Your task to perform on an android device: open app "Cash App" (install if not already installed) Image 0: 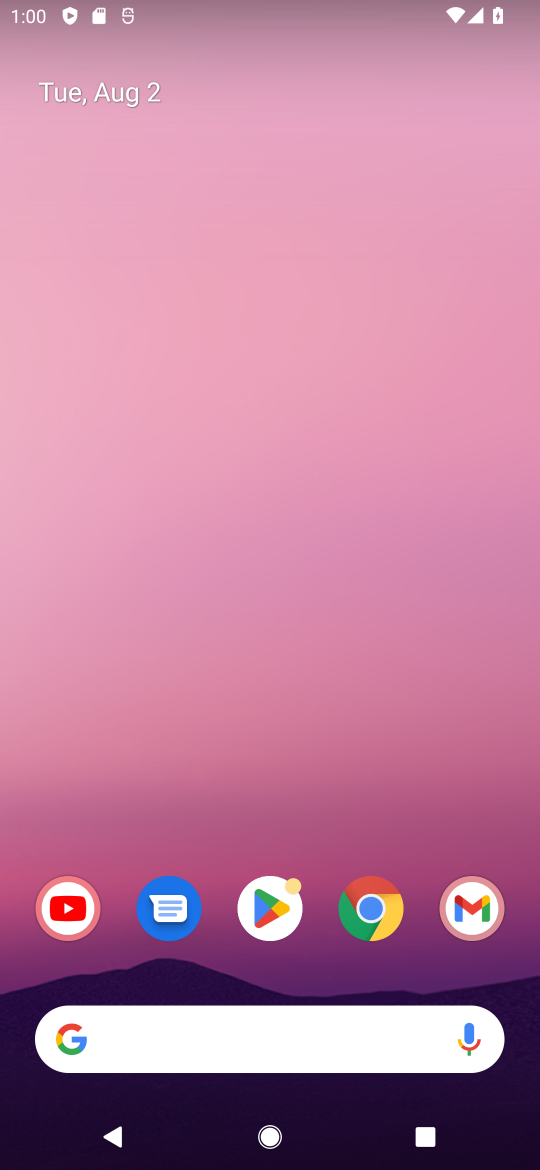
Step 0: click (430, 130)
Your task to perform on an android device: open app "Cash App" (install if not already installed) Image 1: 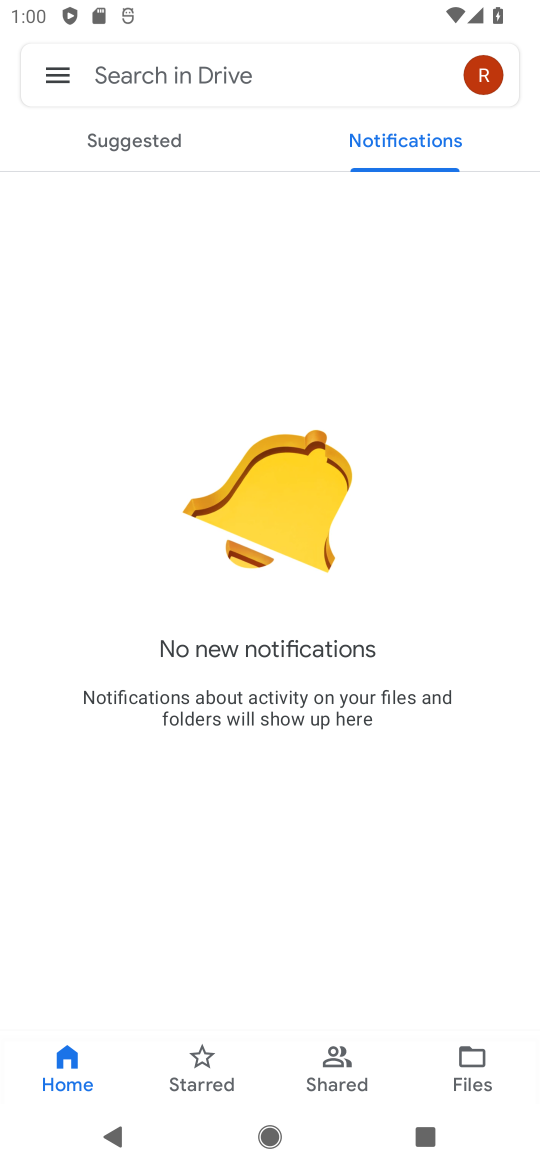
Step 1: press home button
Your task to perform on an android device: open app "Cash App" (install if not already installed) Image 2: 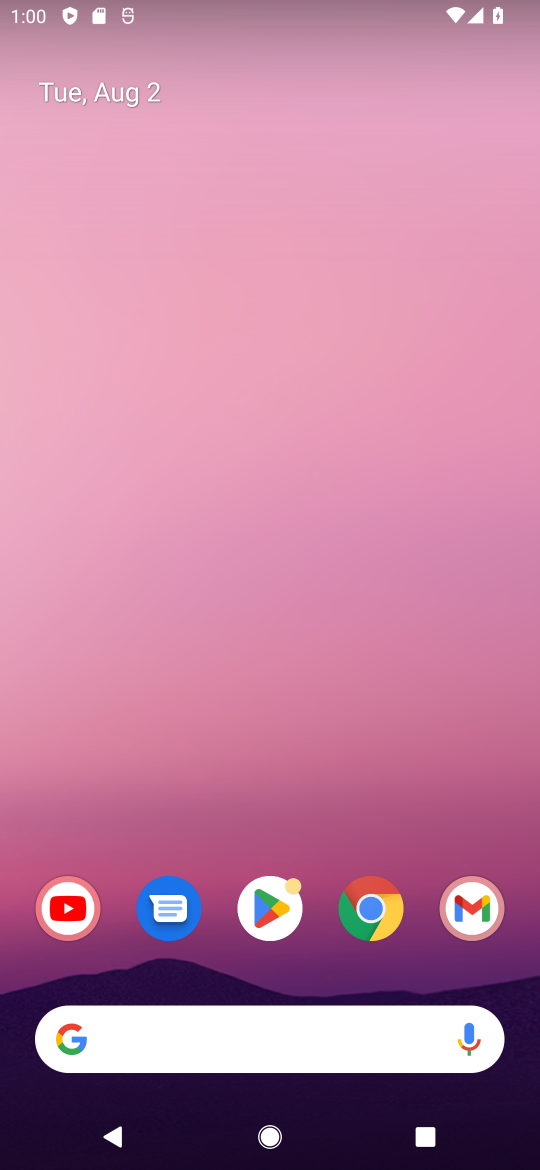
Step 2: click (293, 885)
Your task to perform on an android device: open app "Cash App" (install if not already installed) Image 3: 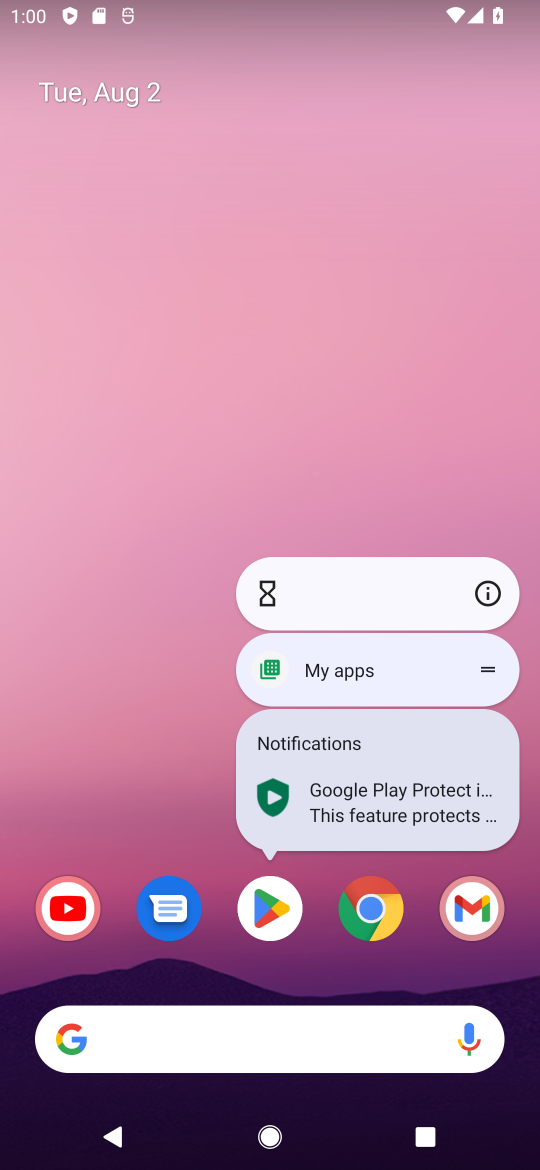
Step 3: click (288, 914)
Your task to perform on an android device: open app "Cash App" (install if not already installed) Image 4: 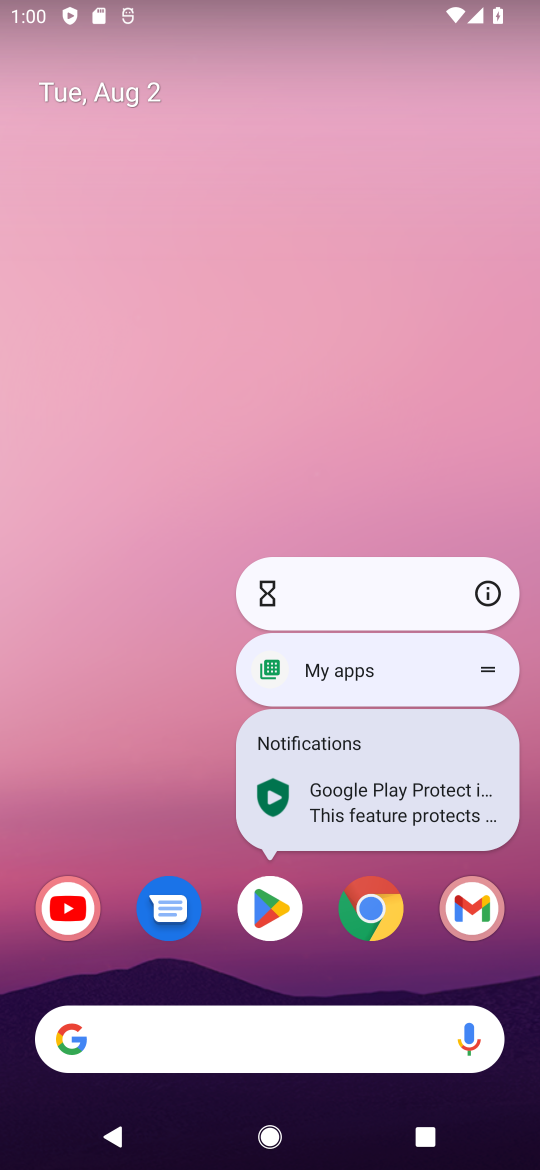
Step 4: click (254, 945)
Your task to perform on an android device: open app "Cash App" (install if not already installed) Image 5: 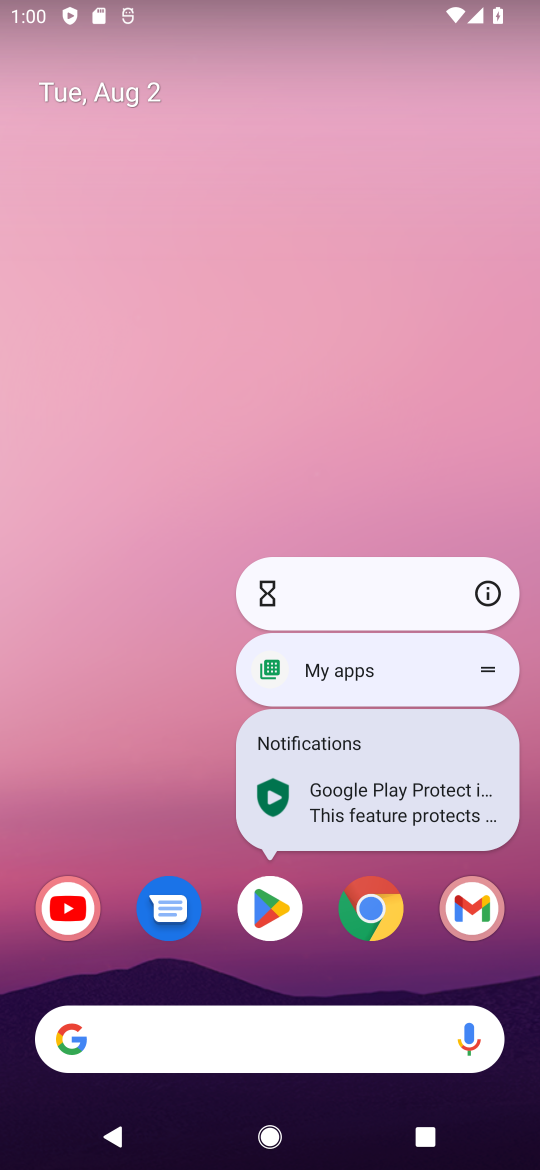
Step 5: click (280, 918)
Your task to perform on an android device: open app "Cash App" (install if not already installed) Image 6: 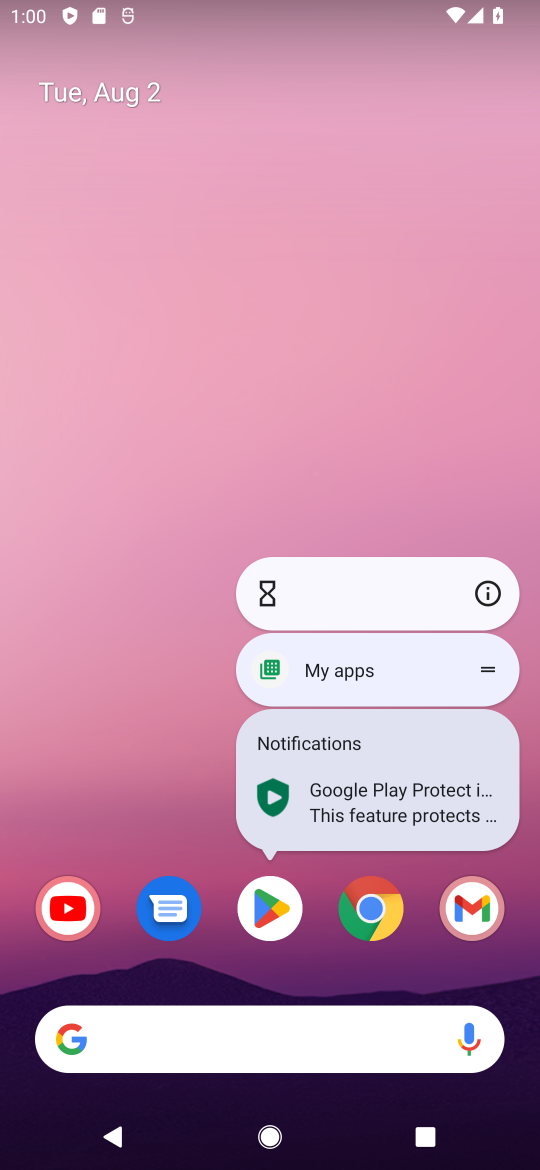
Step 6: click (280, 918)
Your task to perform on an android device: open app "Cash App" (install if not already installed) Image 7: 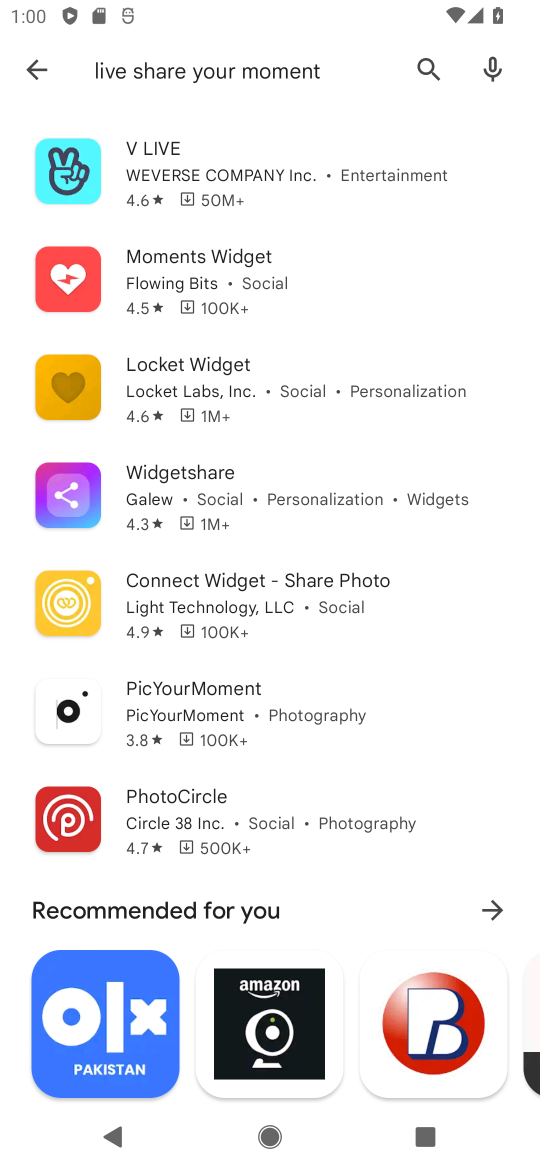
Step 7: click (422, 73)
Your task to perform on an android device: open app "Cash App" (install if not already installed) Image 8: 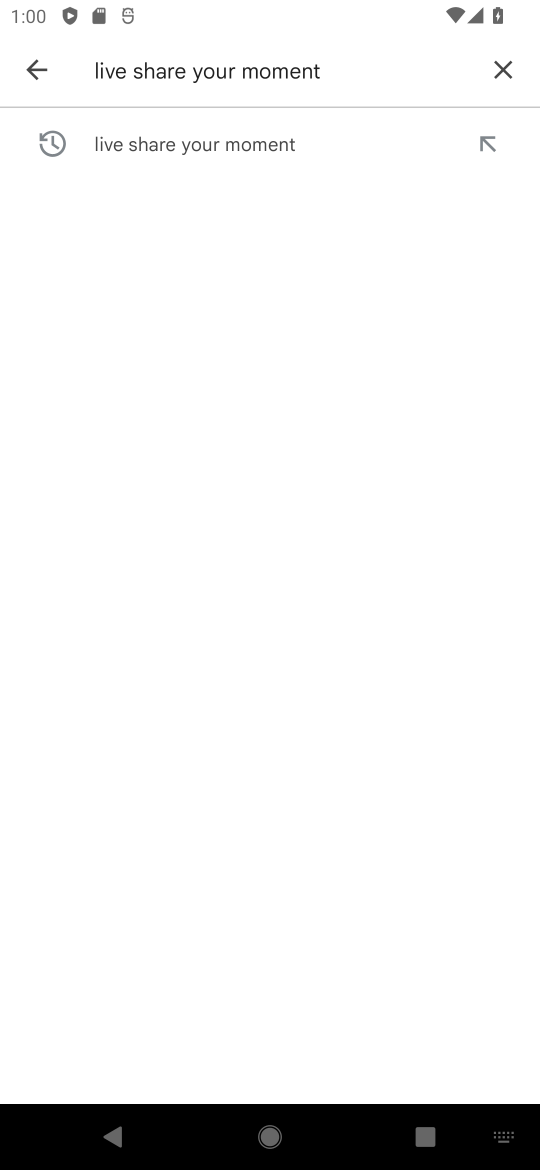
Step 8: click (499, 63)
Your task to perform on an android device: open app "Cash App" (install if not already installed) Image 9: 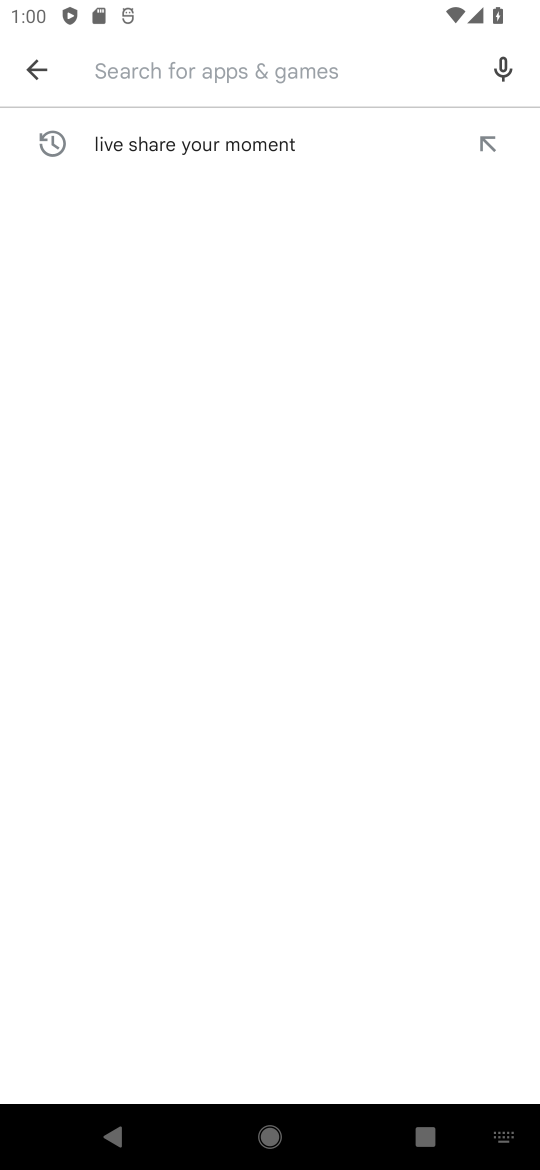
Step 9: type "cash app "
Your task to perform on an android device: open app "Cash App" (install if not already installed) Image 10: 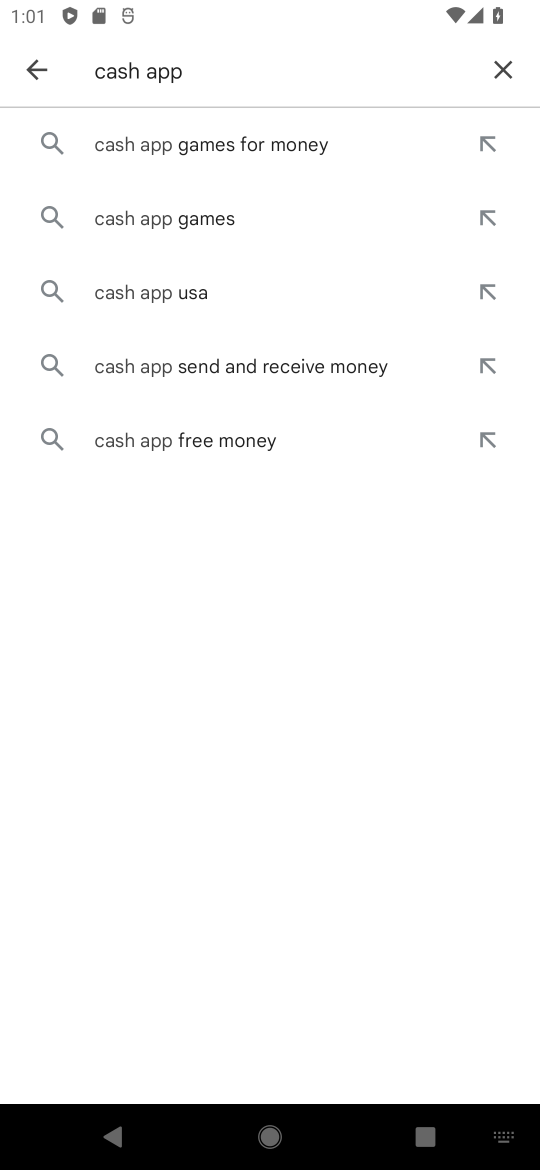
Step 10: click (332, 142)
Your task to perform on an android device: open app "Cash App" (install if not already installed) Image 11: 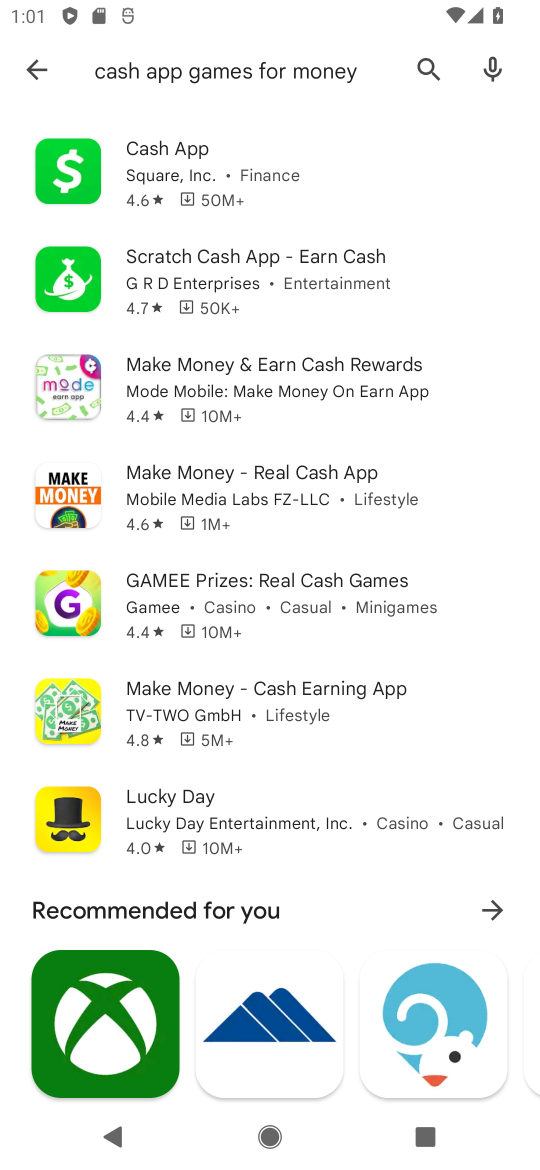
Step 11: click (175, 177)
Your task to perform on an android device: open app "Cash App" (install if not already installed) Image 12: 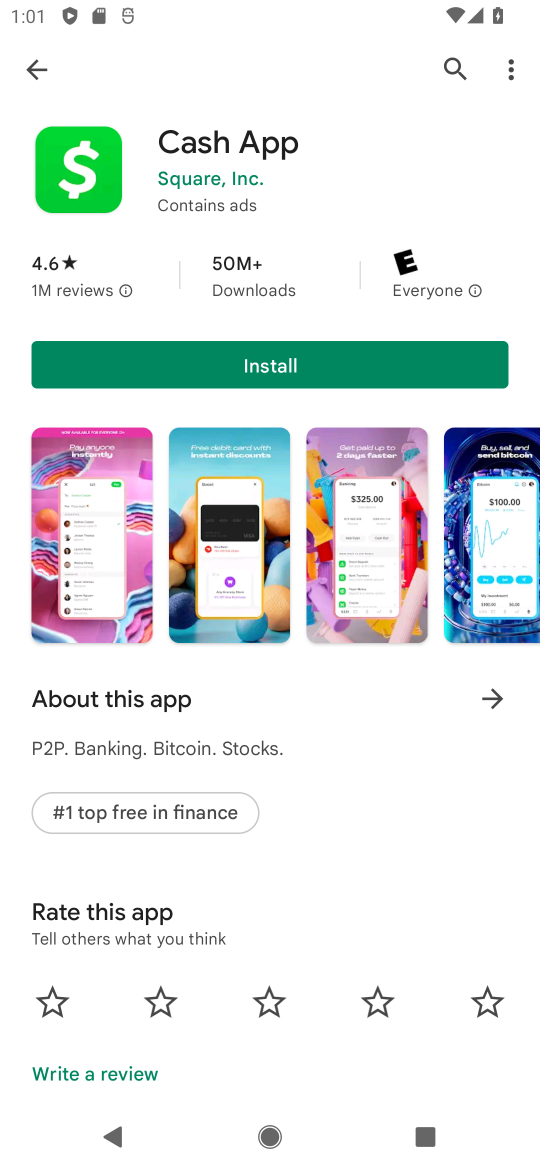
Step 12: click (385, 379)
Your task to perform on an android device: open app "Cash App" (install if not already installed) Image 13: 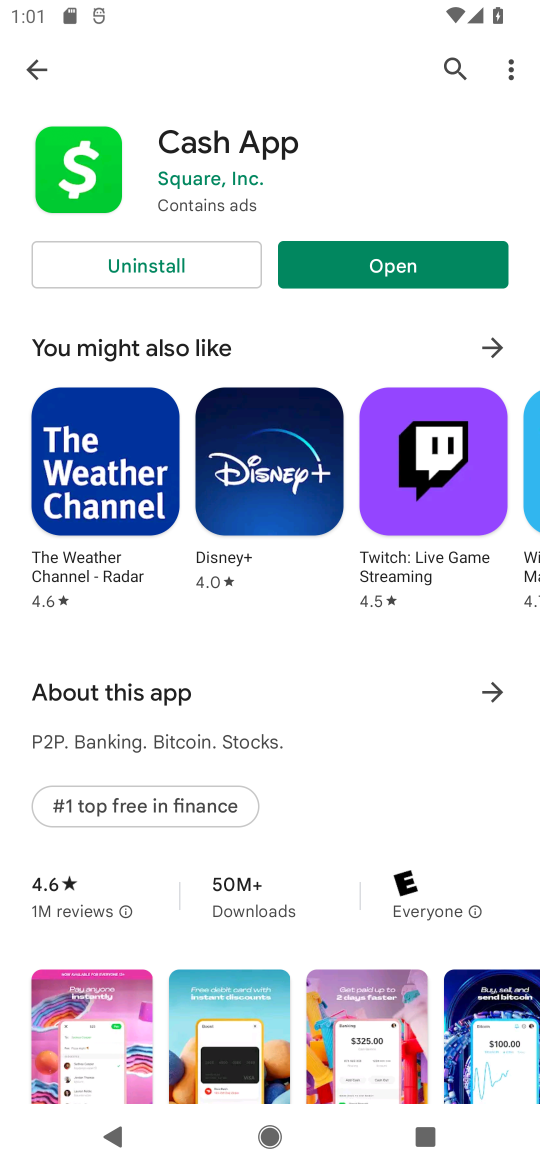
Step 13: click (387, 285)
Your task to perform on an android device: open app "Cash App" (install if not already installed) Image 14: 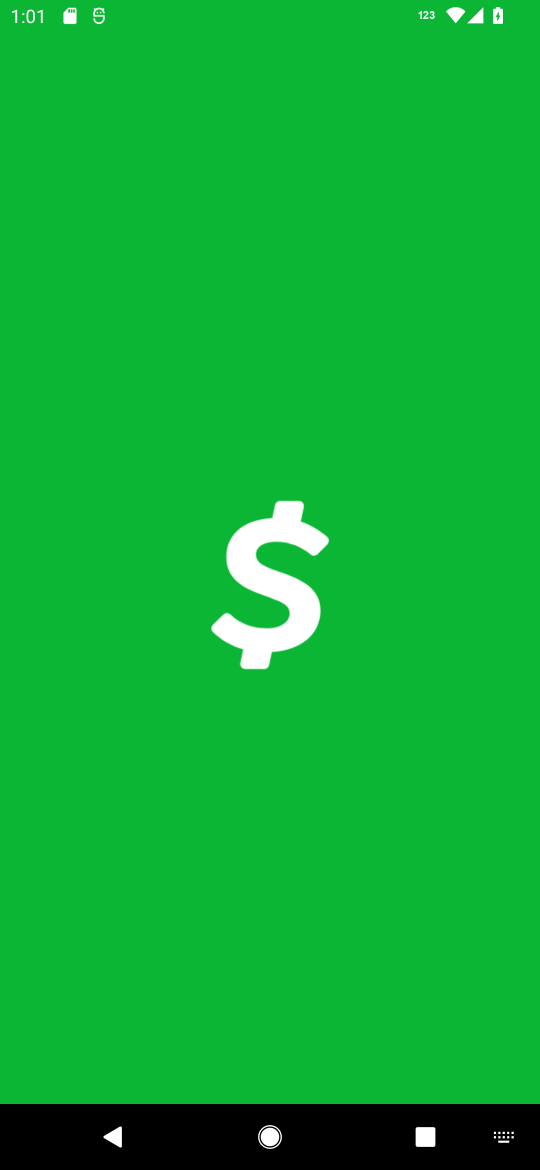
Step 14: task complete